Your task to perform on an android device: install app "Google Play Games" Image 0: 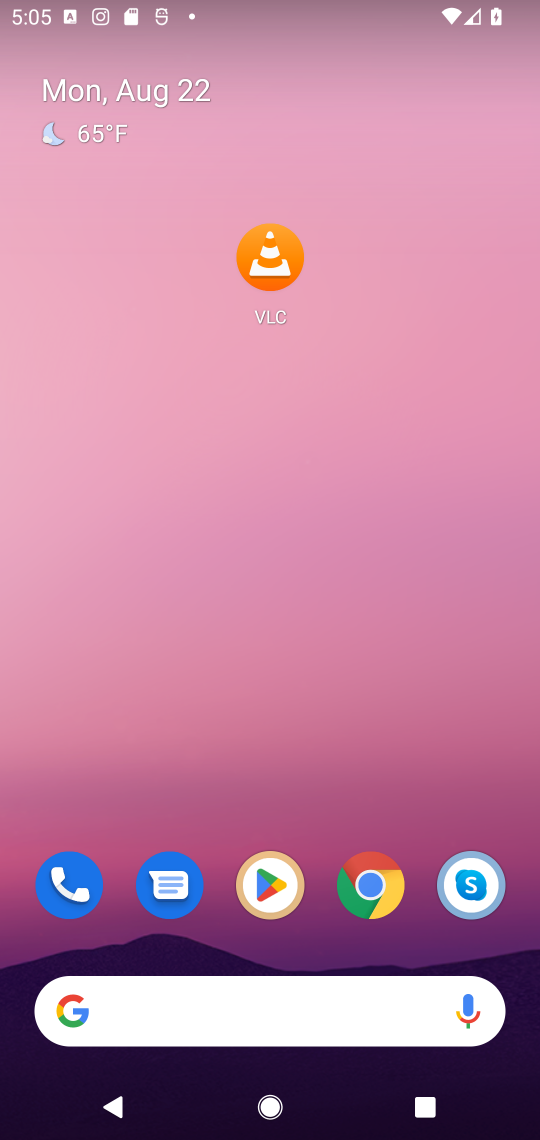
Step 0: click (276, 883)
Your task to perform on an android device: install app "Google Play Games" Image 1: 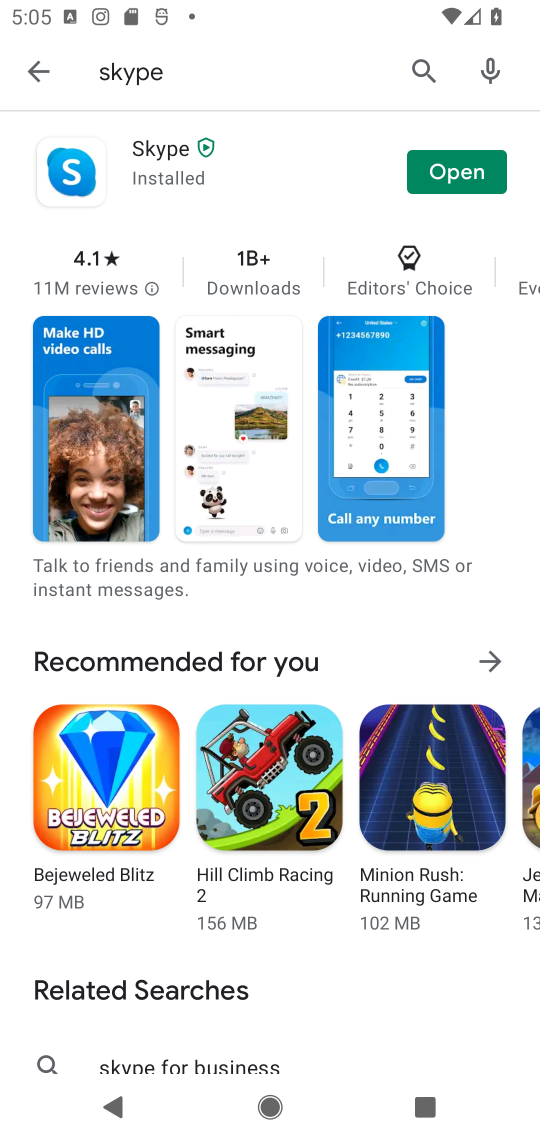
Step 1: click (422, 55)
Your task to perform on an android device: install app "Google Play Games" Image 2: 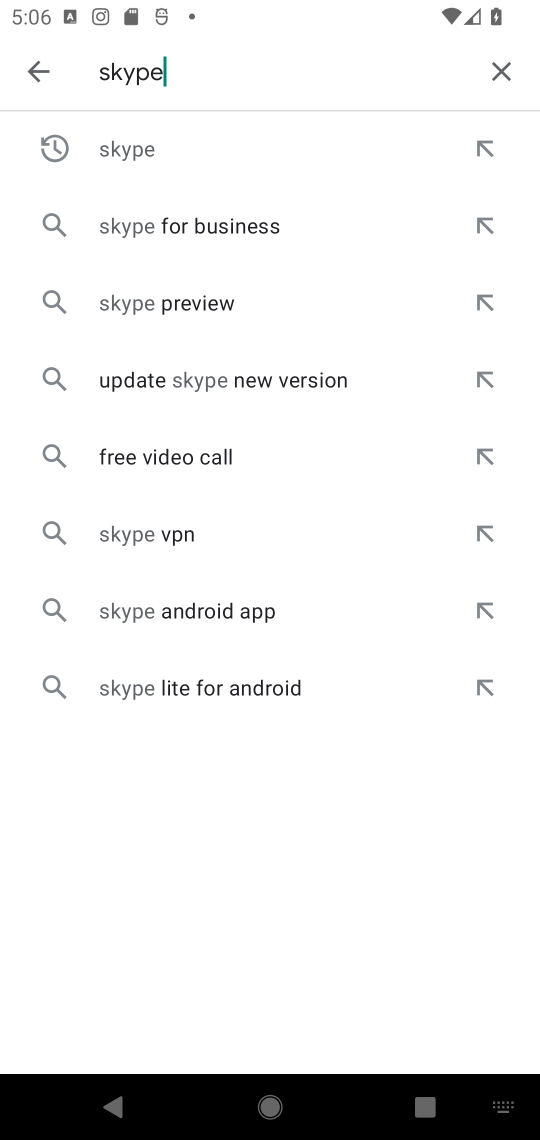
Step 2: click (496, 63)
Your task to perform on an android device: install app "Google Play Games" Image 3: 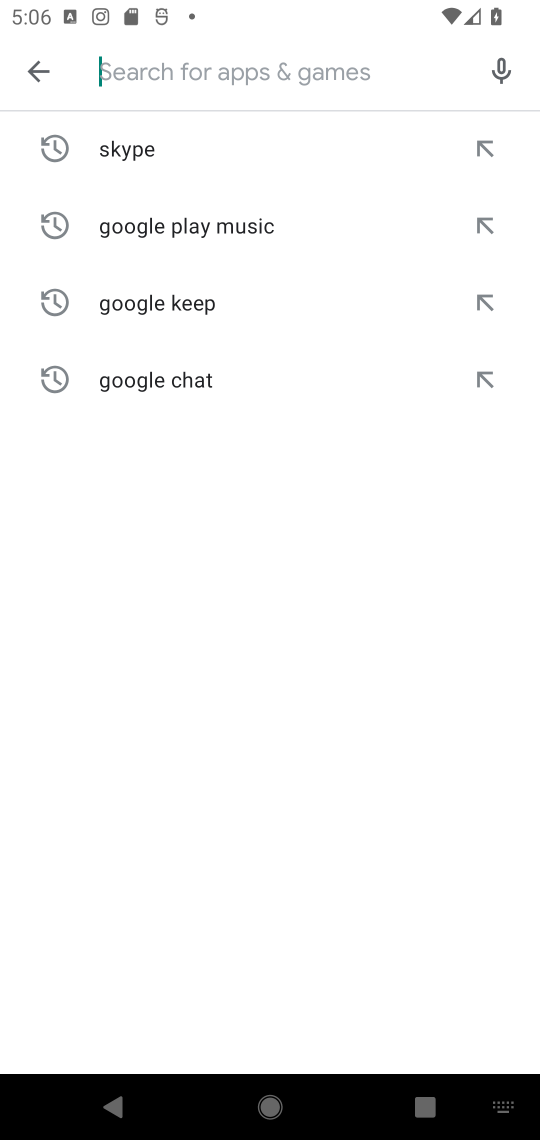
Step 3: type "Google Play Games"
Your task to perform on an android device: install app "Google Play Games" Image 4: 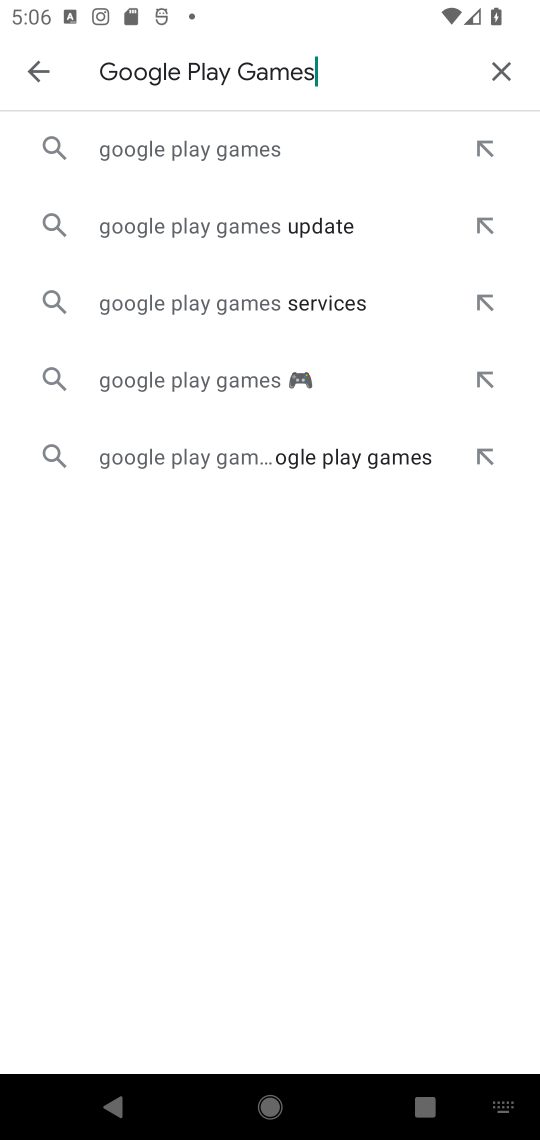
Step 4: click (198, 142)
Your task to perform on an android device: install app "Google Play Games" Image 5: 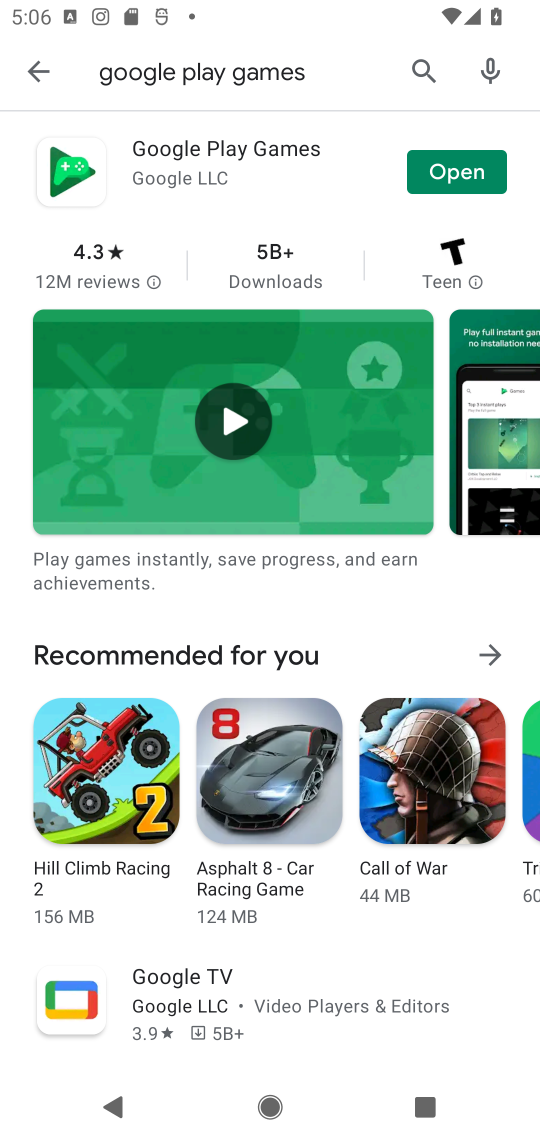
Step 5: click (450, 171)
Your task to perform on an android device: install app "Google Play Games" Image 6: 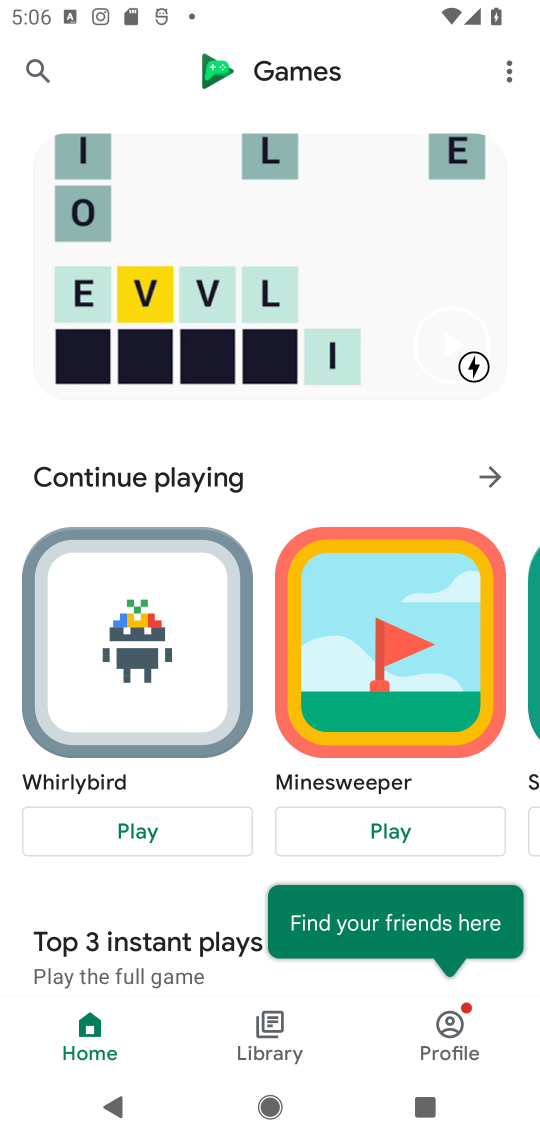
Step 6: task complete